Your task to perform on an android device: set an alarm Image 0: 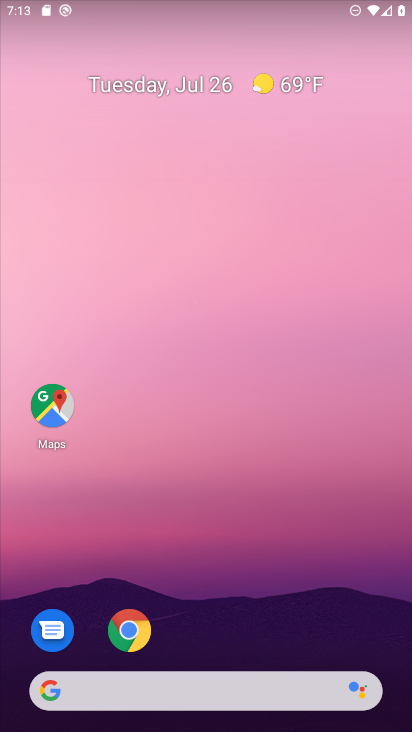
Step 0: drag from (219, 620) to (246, 142)
Your task to perform on an android device: set an alarm Image 1: 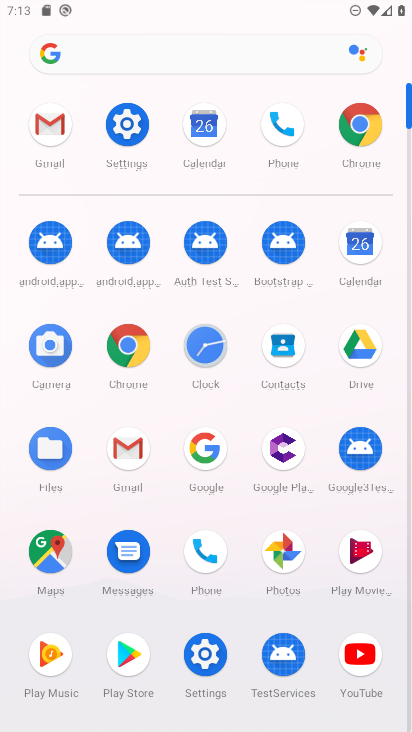
Step 1: click (202, 350)
Your task to perform on an android device: set an alarm Image 2: 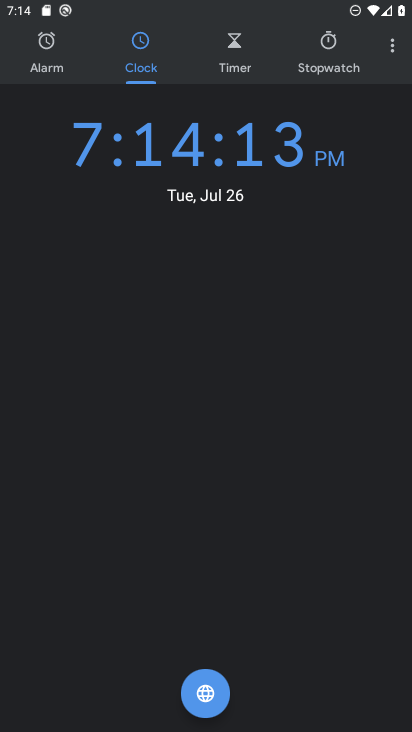
Step 2: click (53, 54)
Your task to perform on an android device: set an alarm Image 3: 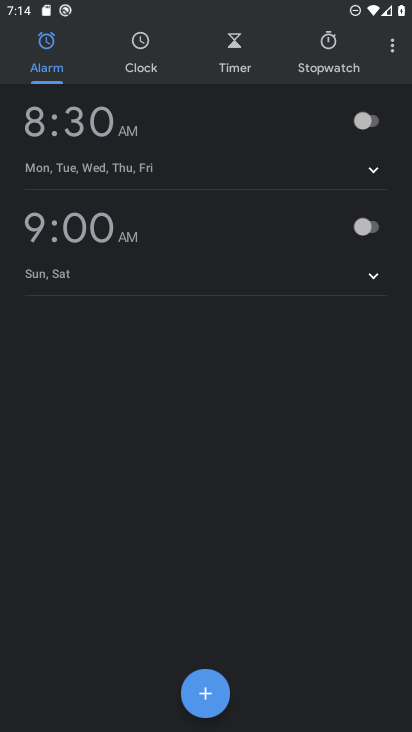
Step 3: click (359, 130)
Your task to perform on an android device: set an alarm Image 4: 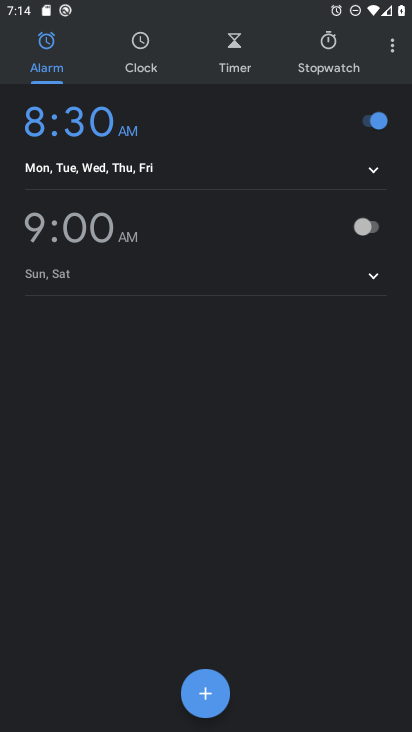
Step 4: task complete